Your task to perform on an android device: Open calendar and show me the first week of next month Image 0: 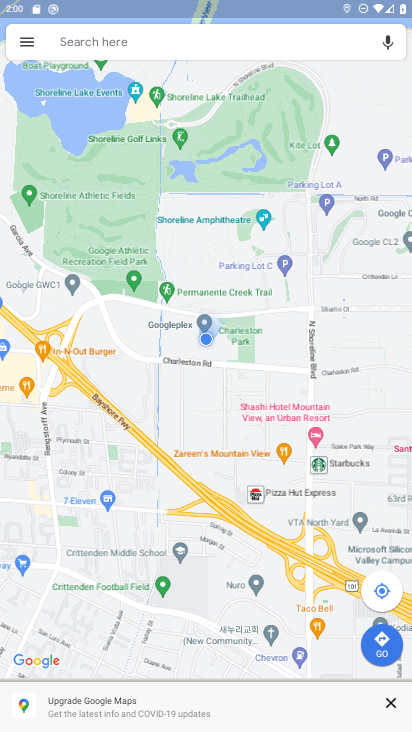
Step 0: press home button
Your task to perform on an android device: Open calendar and show me the first week of next month Image 1: 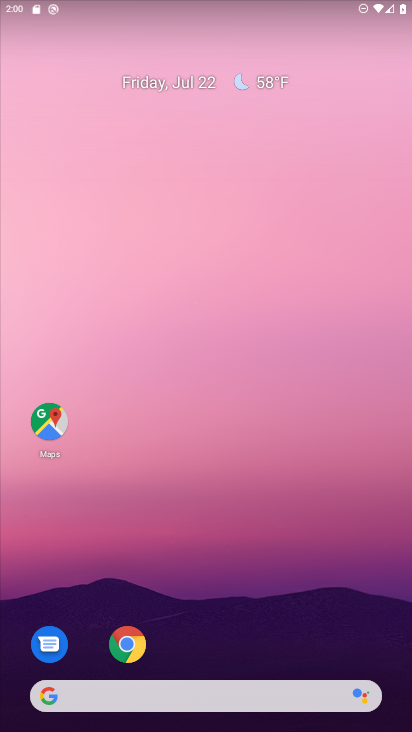
Step 1: drag from (184, 650) to (201, 126)
Your task to perform on an android device: Open calendar and show me the first week of next month Image 2: 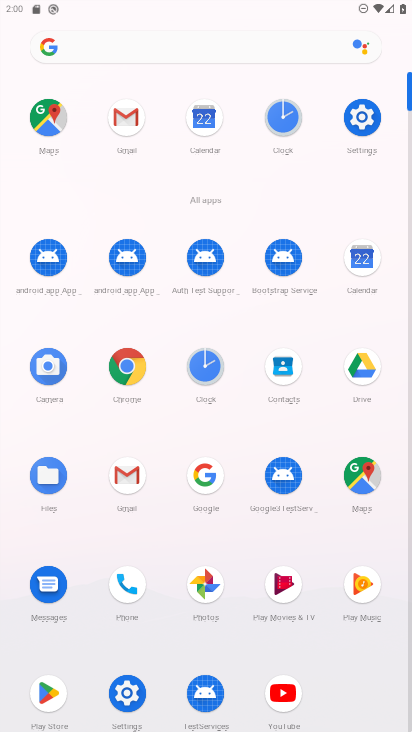
Step 2: click (360, 267)
Your task to perform on an android device: Open calendar and show me the first week of next month Image 3: 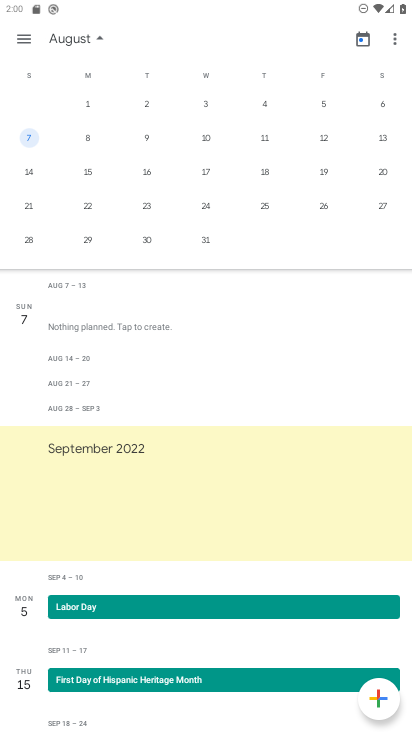
Step 3: click (93, 116)
Your task to perform on an android device: Open calendar and show me the first week of next month Image 4: 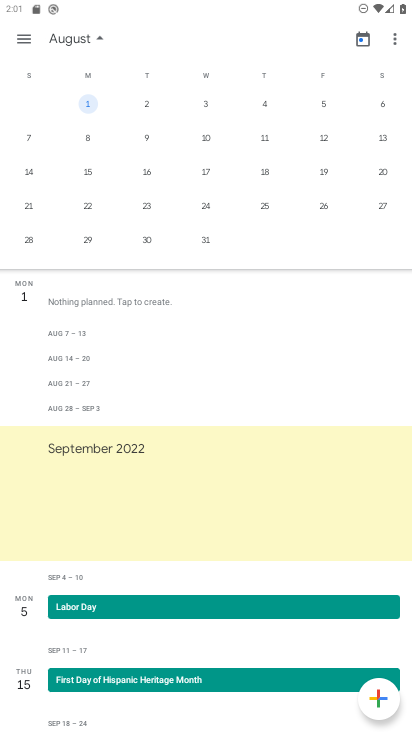
Step 4: task complete